Your task to perform on an android device: What's the weather going to be this weekend? Image 0: 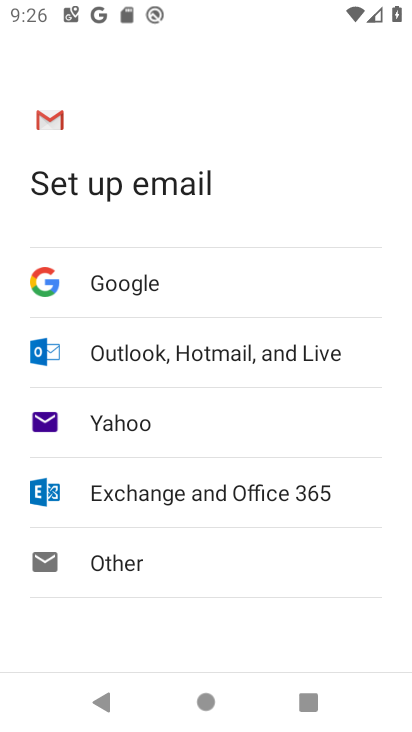
Step 0: press home button
Your task to perform on an android device: What's the weather going to be this weekend? Image 1: 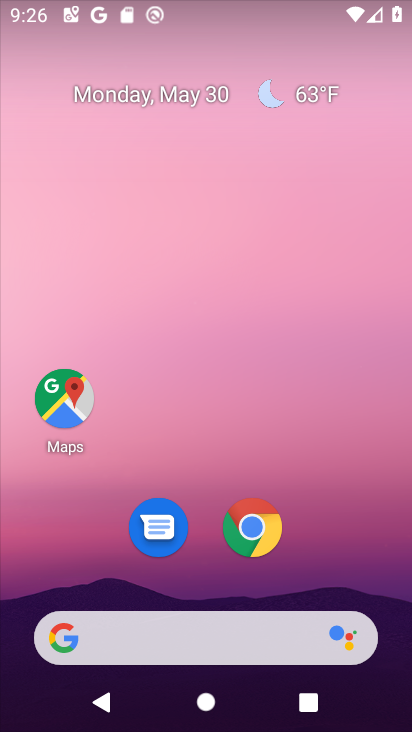
Step 1: click (251, 519)
Your task to perform on an android device: What's the weather going to be this weekend? Image 2: 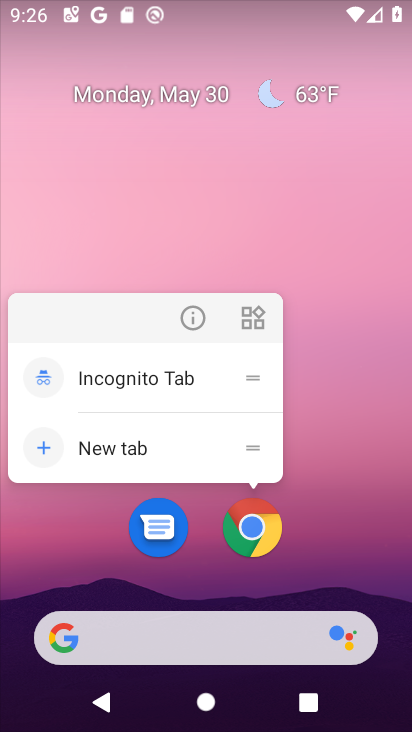
Step 2: click (250, 518)
Your task to perform on an android device: What's the weather going to be this weekend? Image 3: 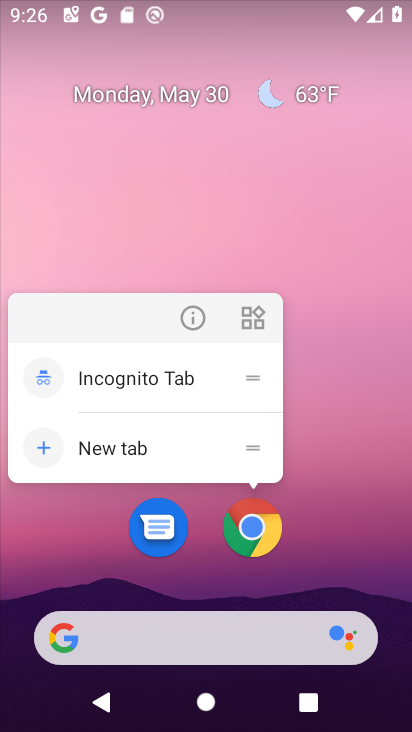
Step 3: click (250, 518)
Your task to perform on an android device: What's the weather going to be this weekend? Image 4: 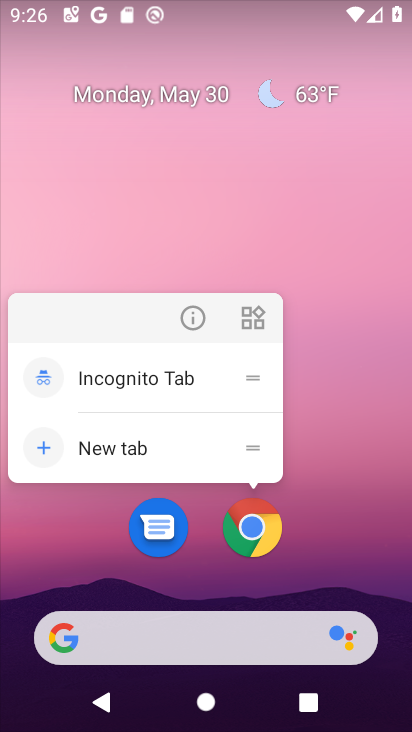
Step 4: click (250, 518)
Your task to perform on an android device: What's the weather going to be this weekend? Image 5: 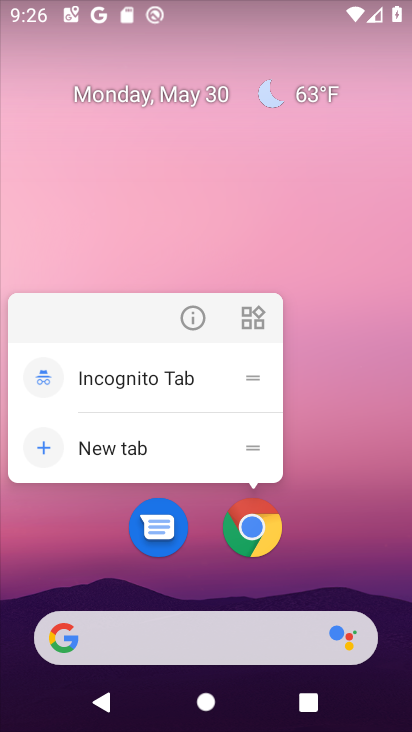
Step 5: click (250, 538)
Your task to perform on an android device: What's the weather going to be this weekend? Image 6: 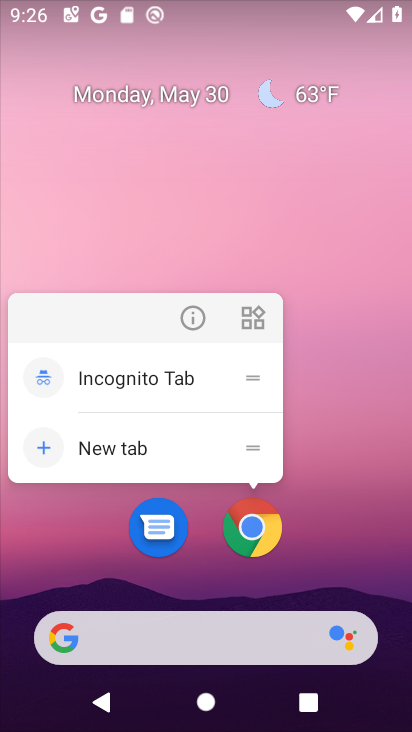
Step 6: drag from (222, 635) to (296, 248)
Your task to perform on an android device: What's the weather going to be this weekend? Image 7: 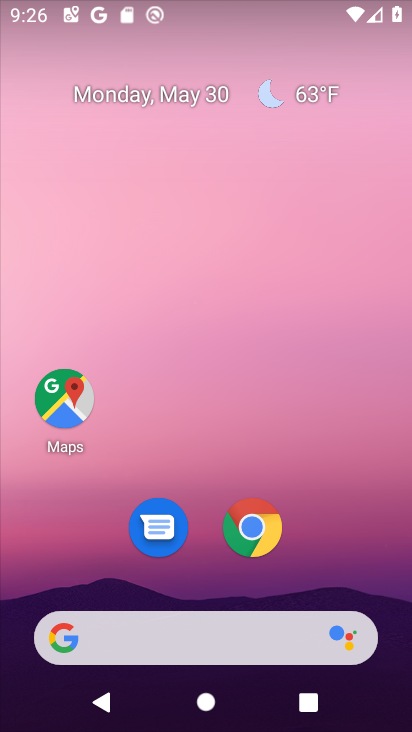
Step 7: drag from (159, 625) to (242, 242)
Your task to perform on an android device: What's the weather going to be this weekend? Image 8: 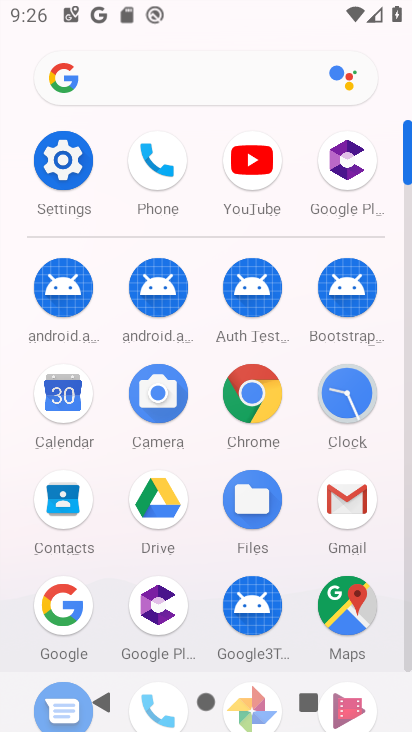
Step 8: click (243, 386)
Your task to perform on an android device: What's the weather going to be this weekend? Image 9: 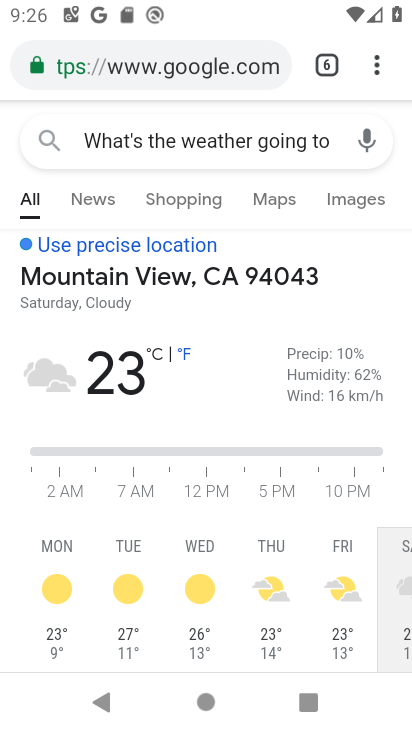
Step 9: click (381, 54)
Your task to perform on an android device: What's the weather going to be this weekend? Image 10: 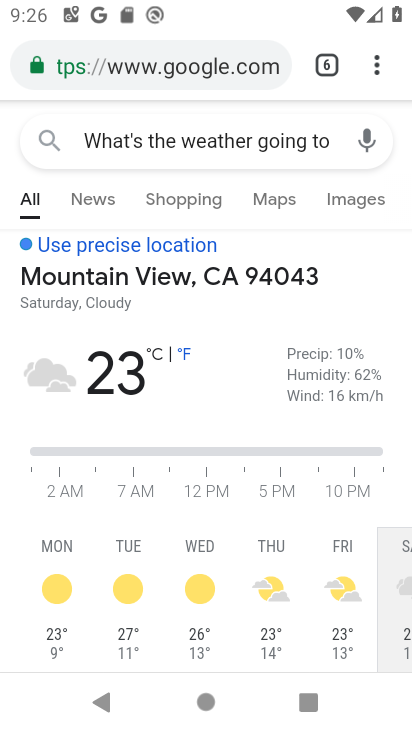
Step 10: click (389, 63)
Your task to perform on an android device: What's the weather going to be this weekend? Image 11: 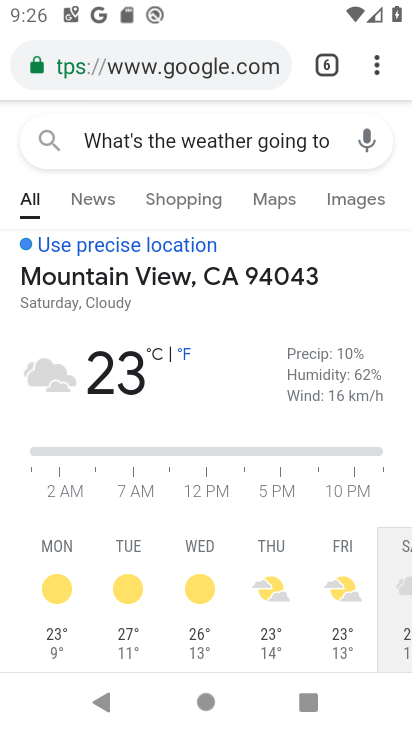
Step 11: click (380, 80)
Your task to perform on an android device: What's the weather going to be this weekend? Image 12: 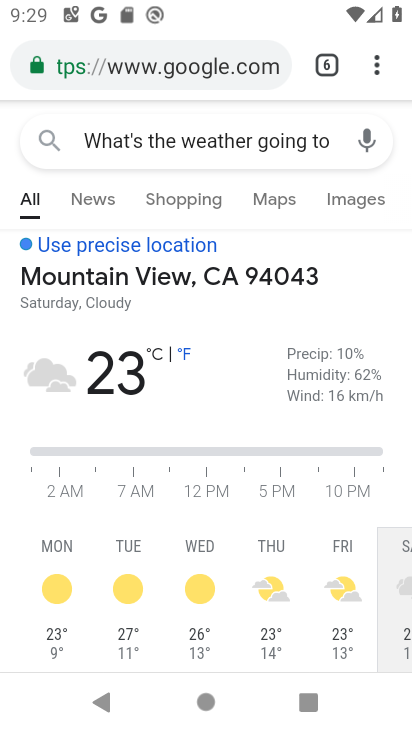
Step 12: task complete